Your task to perform on an android device: Open Google Image 0: 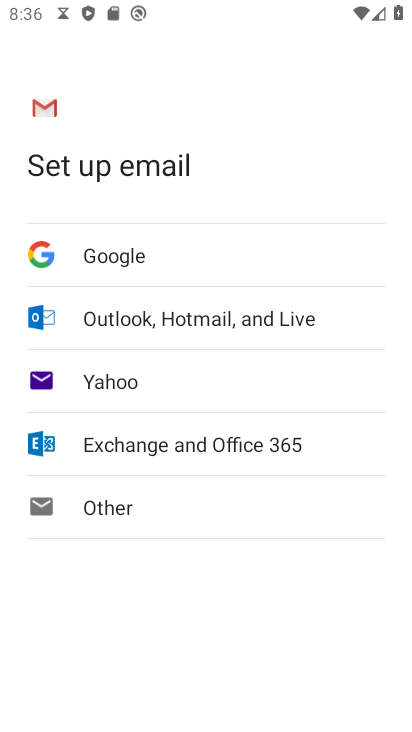
Step 0: press home button
Your task to perform on an android device: Open Google Image 1: 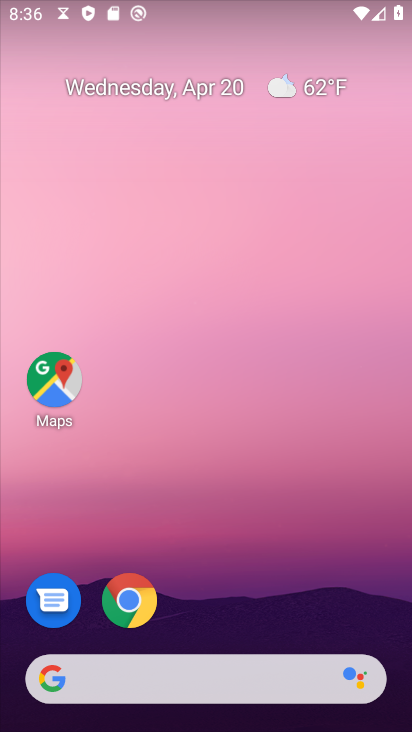
Step 1: drag from (224, 592) to (226, 122)
Your task to perform on an android device: Open Google Image 2: 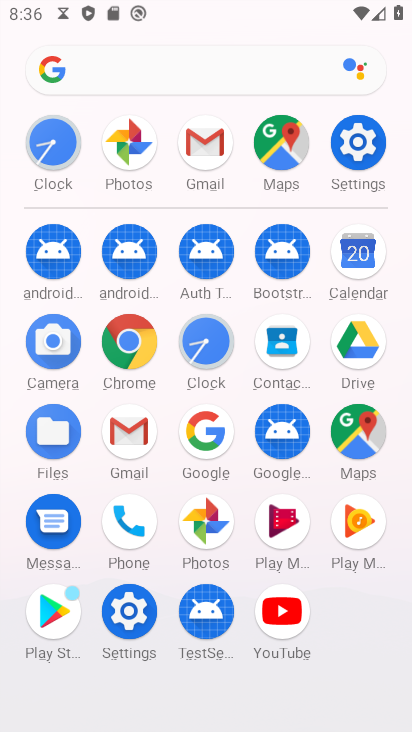
Step 2: click (212, 428)
Your task to perform on an android device: Open Google Image 3: 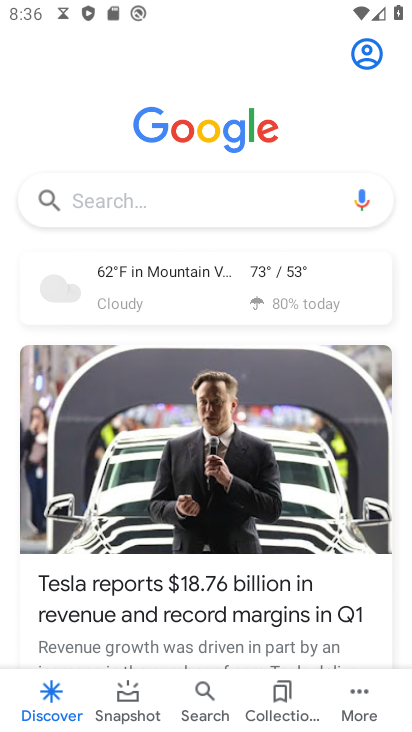
Step 3: task complete